Your task to perform on an android device: Play the last video I watched on Youtube Image 0: 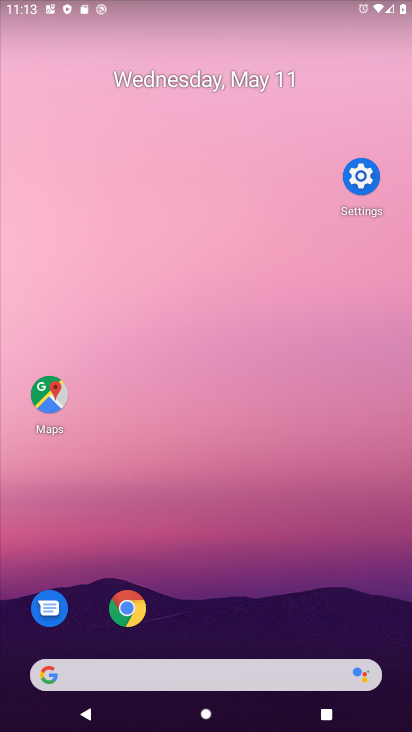
Step 0: click (407, 584)
Your task to perform on an android device: Play the last video I watched on Youtube Image 1: 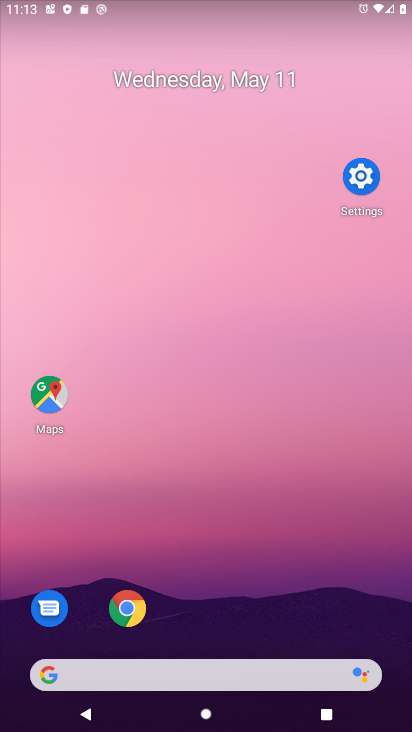
Step 1: drag from (351, 587) to (252, 9)
Your task to perform on an android device: Play the last video I watched on Youtube Image 2: 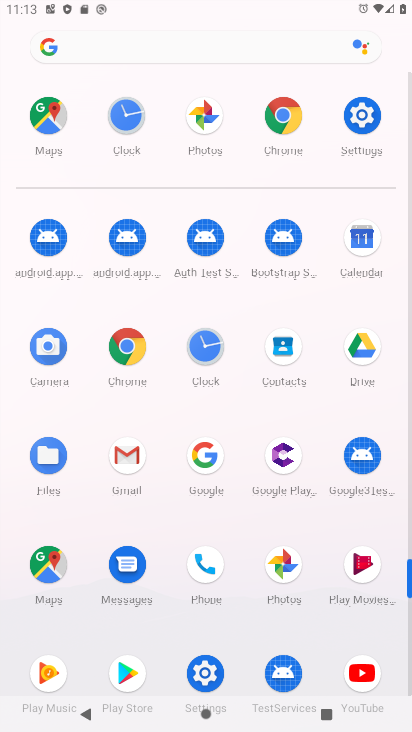
Step 2: click (361, 666)
Your task to perform on an android device: Play the last video I watched on Youtube Image 3: 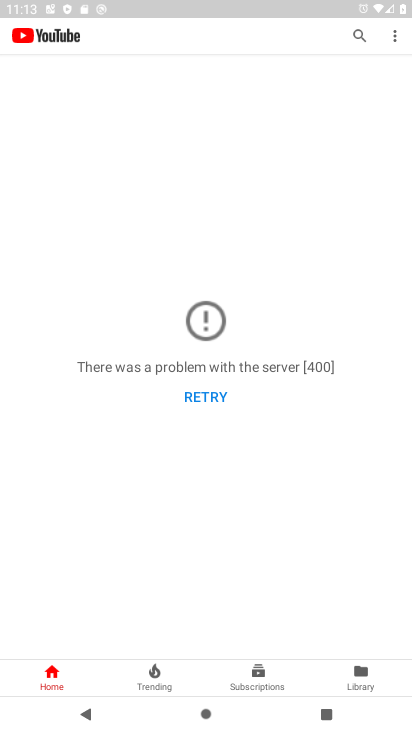
Step 3: task complete